Your task to perform on an android device: toggle wifi Image 0: 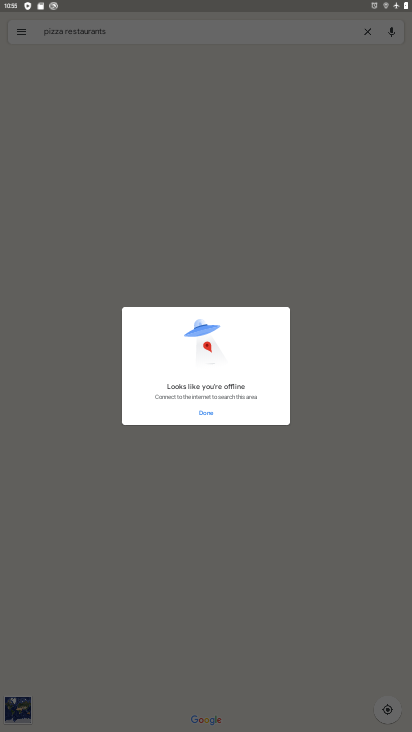
Step 0: press home button
Your task to perform on an android device: toggle wifi Image 1: 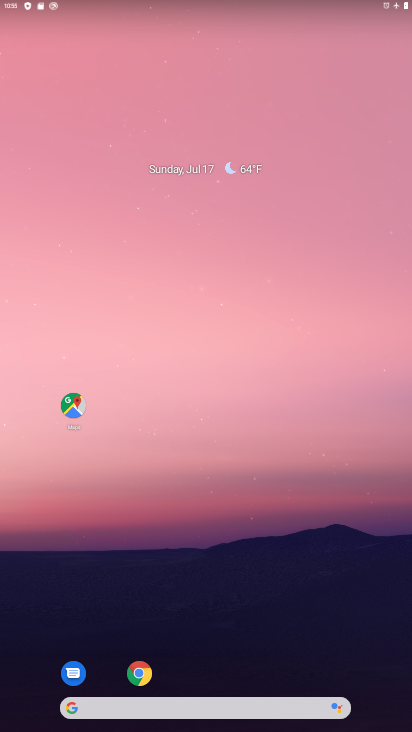
Step 1: drag from (236, 675) to (184, 181)
Your task to perform on an android device: toggle wifi Image 2: 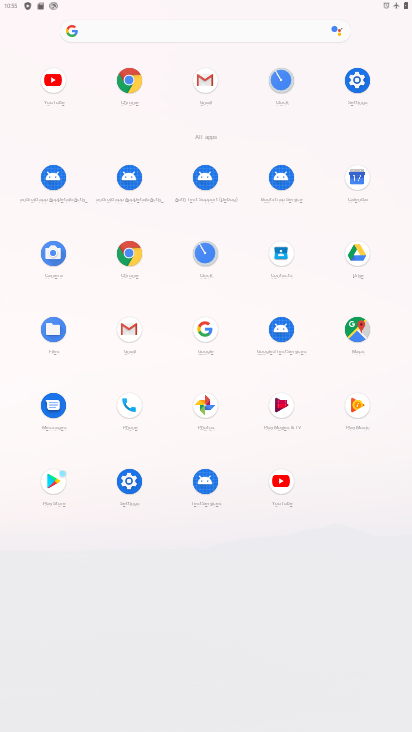
Step 2: click (351, 83)
Your task to perform on an android device: toggle wifi Image 3: 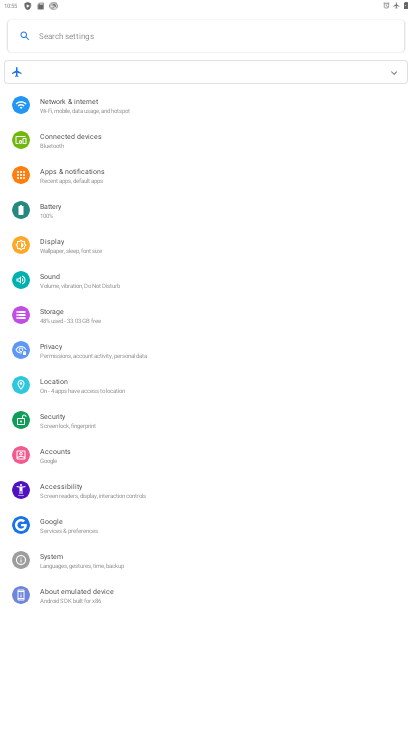
Step 3: click (324, 113)
Your task to perform on an android device: toggle wifi Image 4: 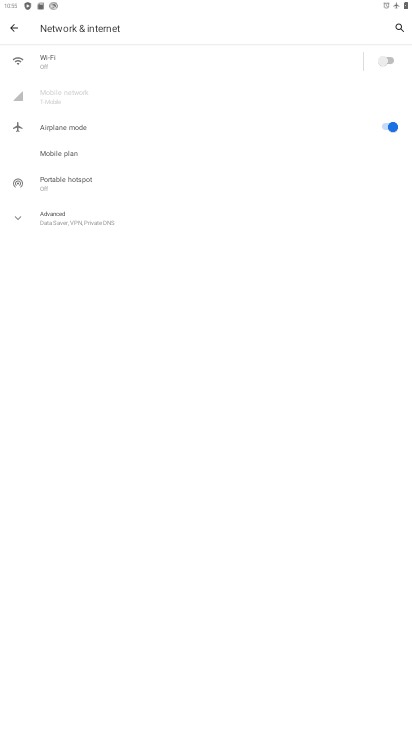
Step 4: click (381, 62)
Your task to perform on an android device: toggle wifi Image 5: 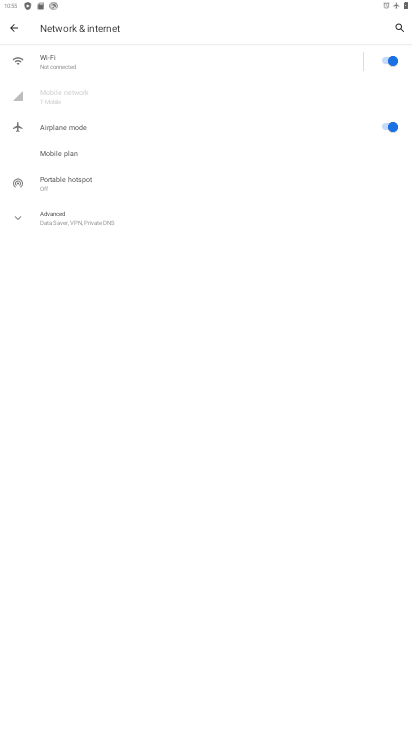
Step 5: task complete